Your task to perform on an android device: open a new tab in the chrome app Image 0: 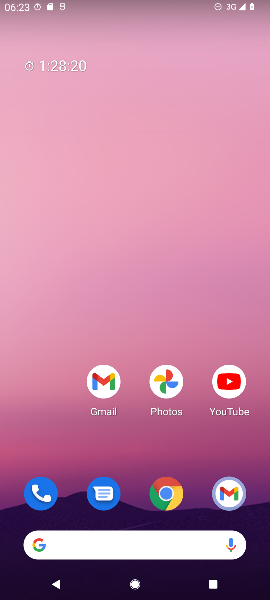
Step 0: press home button
Your task to perform on an android device: open a new tab in the chrome app Image 1: 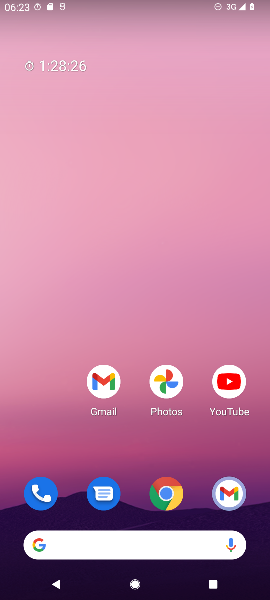
Step 1: drag from (52, 442) to (37, 85)
Your task to perform on an android device: open a new tab in the chrome app Image 2: 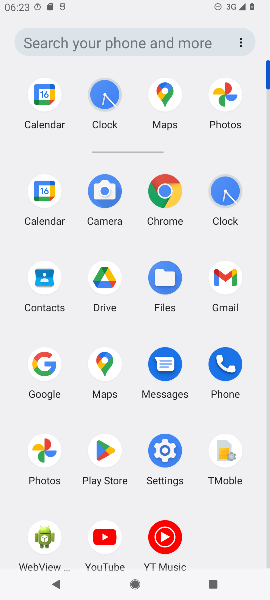
Step 2: click (160, 184)
Your task to perform on an android device: open a new tab in the chrome app Image 3: 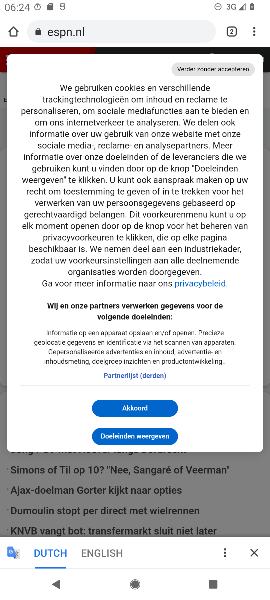
Step 3: task complete